Your task to perform on an android device: Go to notification settings Image 0: 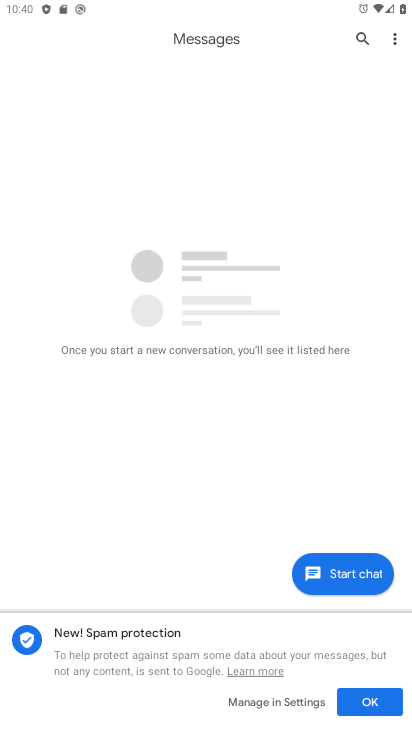
Step 0: press home button
Your task to perform on an android device: Go to notification settings Image 1: 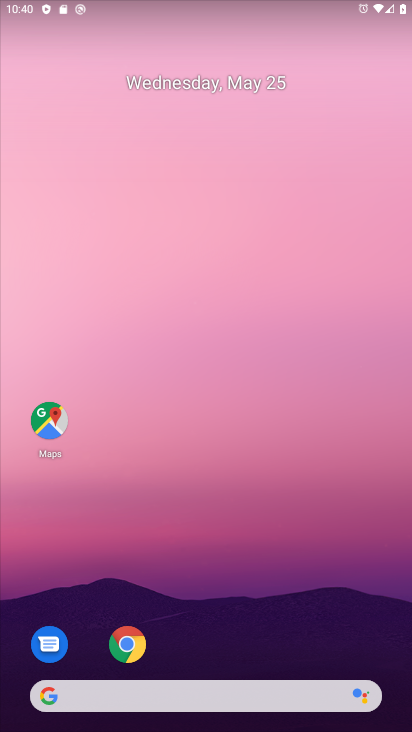
Step 1: drag from (221, 669) to (320, 165)
Your task to perform on an android device: Go to notification settings Image 2: 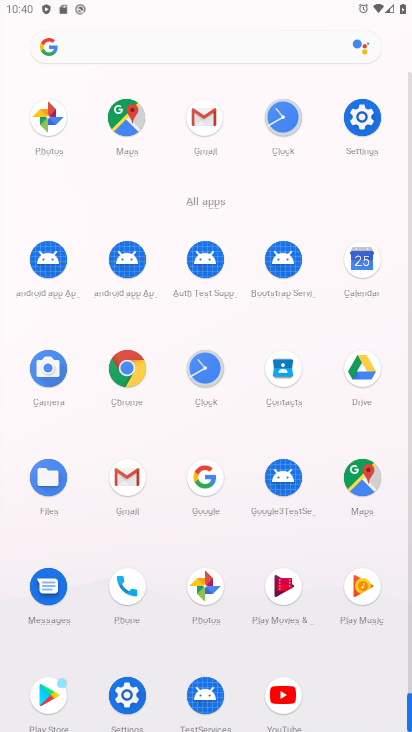
Step 2: drag from (178, 695) to (236, 485)
Your task to perform on an android device: Go to notification settings Image 3: 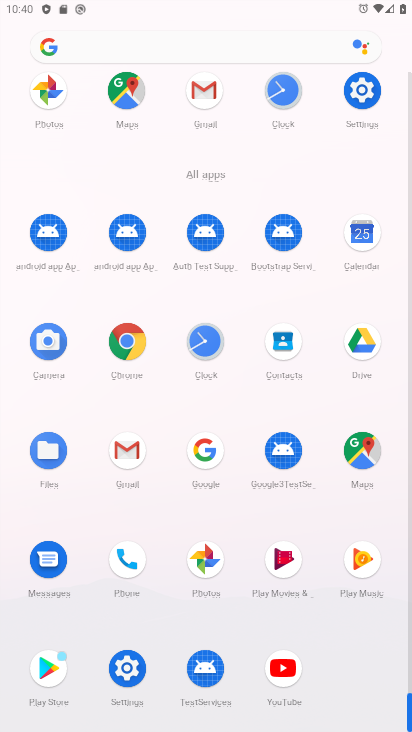
Step 3: click (130, 673)
Your task to perform on an android device: Go to notification settings Image 4: 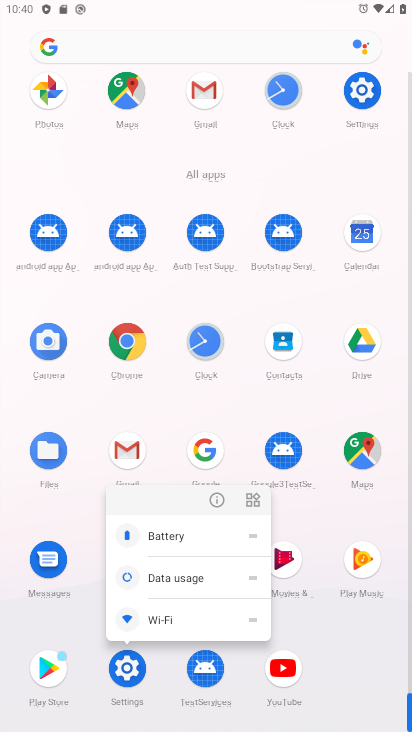
Step 4: click (134, 673)
Your task to perform on an android device: Go to notification settings Image 5: 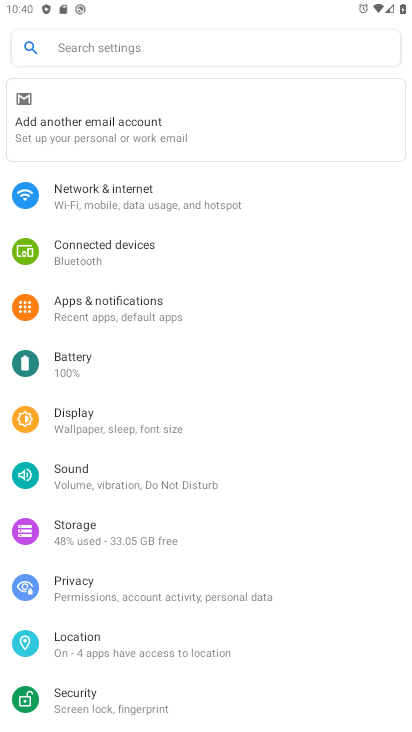
Step 5: click (175, 306)
Your task to perform on an android device: Go to notification settings Image 6: 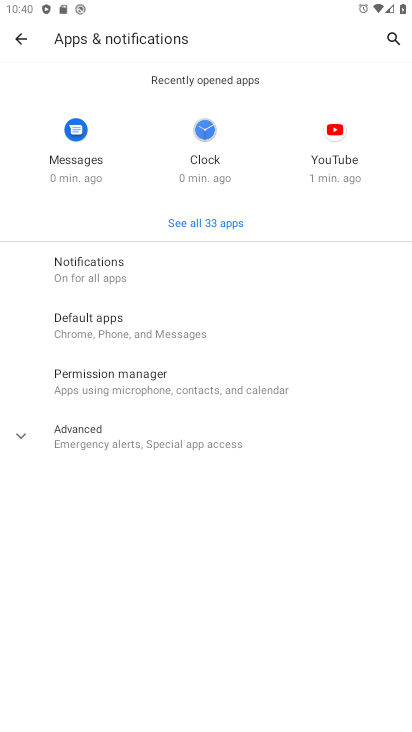
Step 6: click (202, 288)
Your task to perform on an android device: Go to notification settings Image 7: 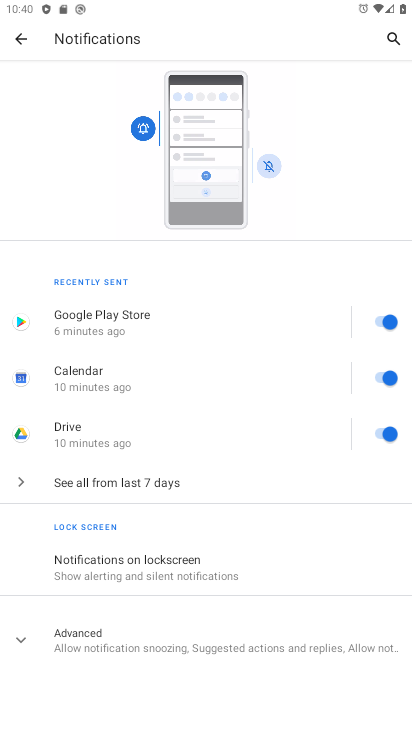
Step 7: task complete